Your task to perform on an android device: Go to eBay Image 0: 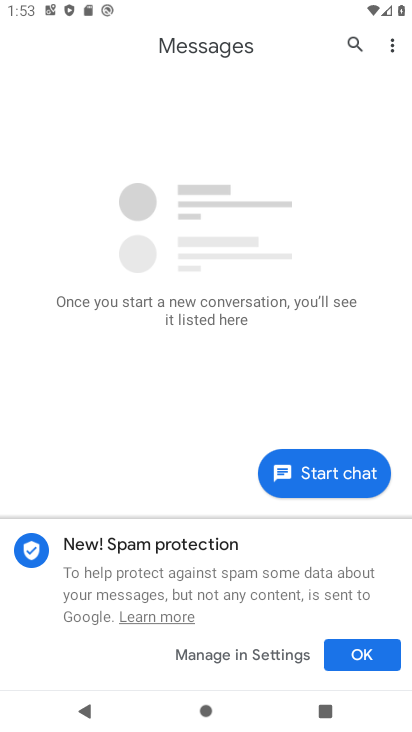
Step 0: press home button
Your task to perform on an android device: Go to eBay Image 1: 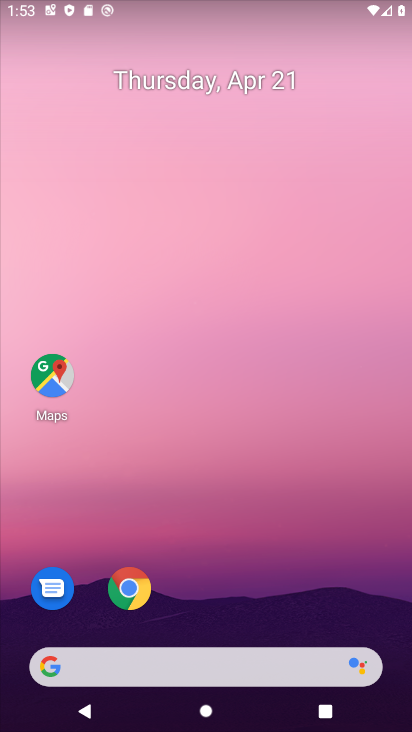
Step 1: drag from (221, 560) to (267, 302)
Your task to perform on an android device: Go to eBay Image 2: 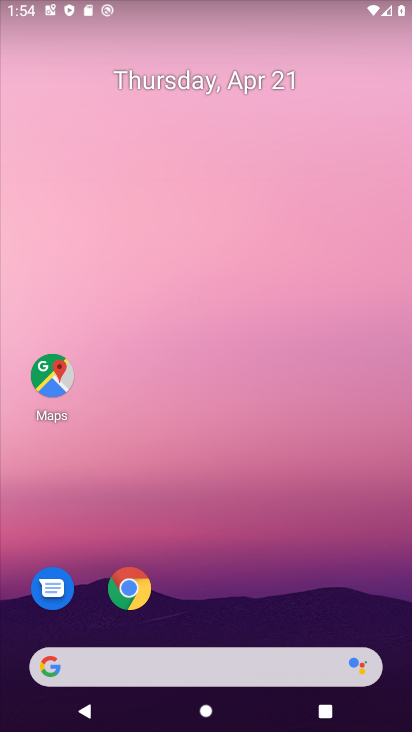
Step 2: click (134, 596)
Your task to perform on an android device: Go to eBay Image 3: 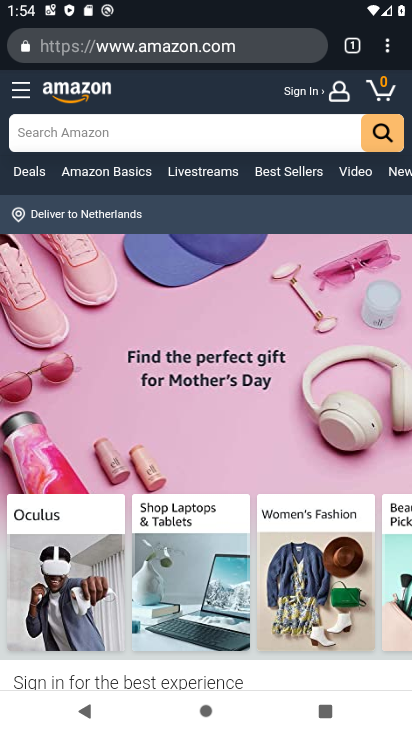
Step 3: click (208, 41)
Your task to perform on an android device: Go to eBay Image 4: 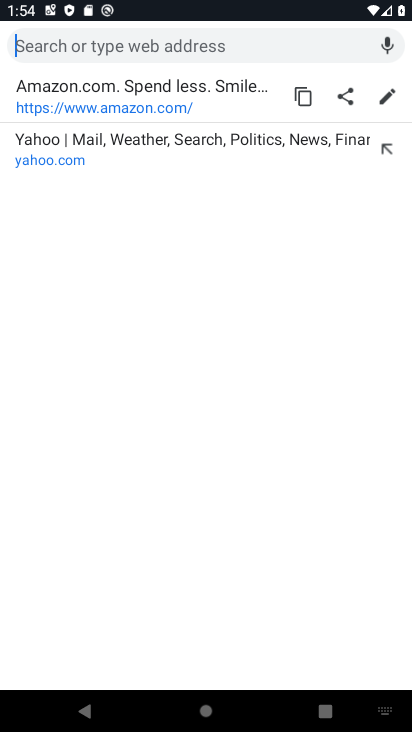
Step 4: type "ebay"
Your task to perform on an android device: Go to eBay Image 5: 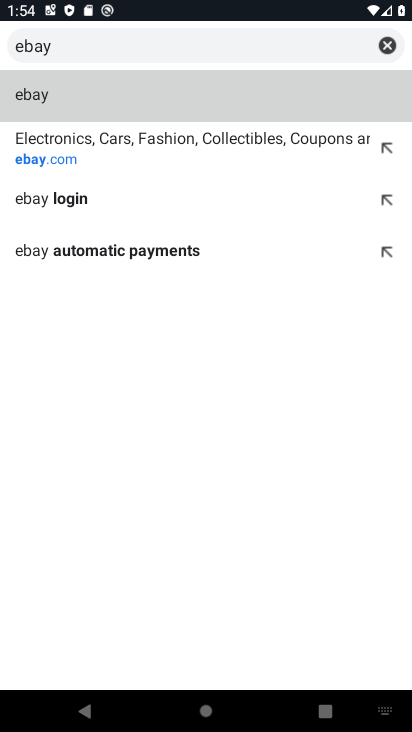
Step 5: click (254, 138)
Your task to perform on an android device: Go to eBay Image 6: 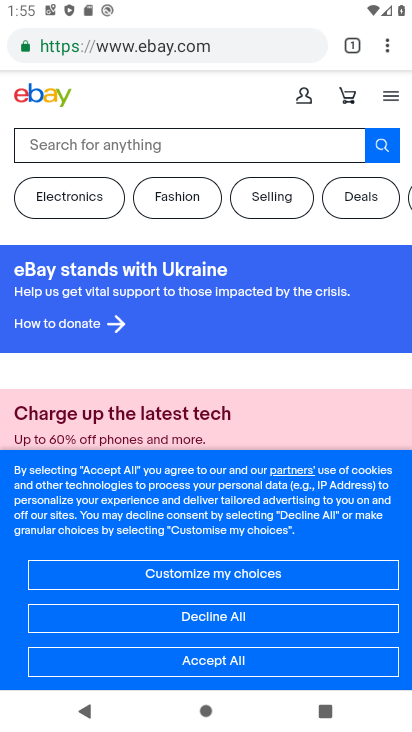
Step 6: task complete